Your task to perform on an android device: turn off translation in the chrome app Image 0: 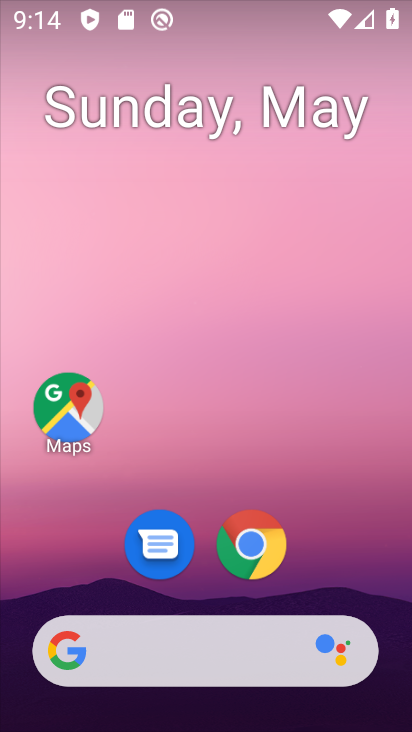
Step 0: drag from (328, 576) to (341, 199)
Your task to perform on an android device: turn off translation in the chrome app Image 1: 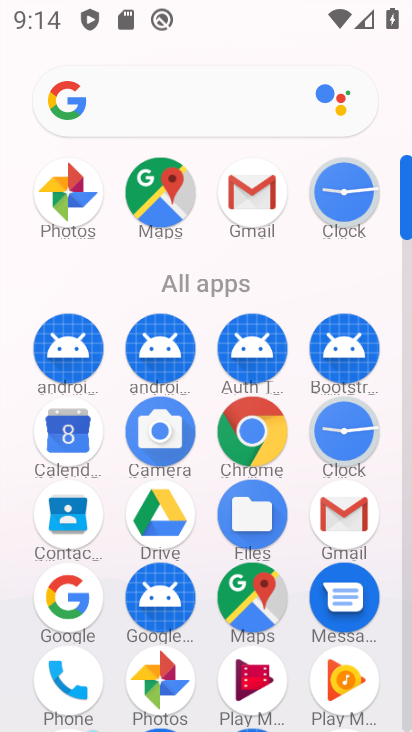
Step 1: click (264, 448)
Your task to perform on an android device: turn off translation in the chrome app Image 2: 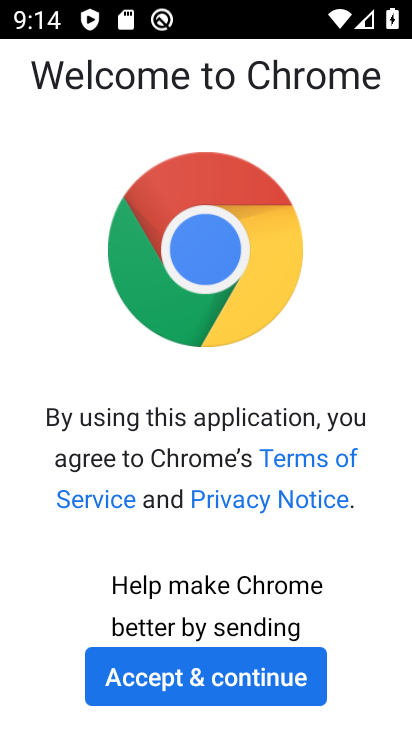
Step 2: click (198, 674)
Your task to perform on an android device: turn off translation in the chrome app Image 3: 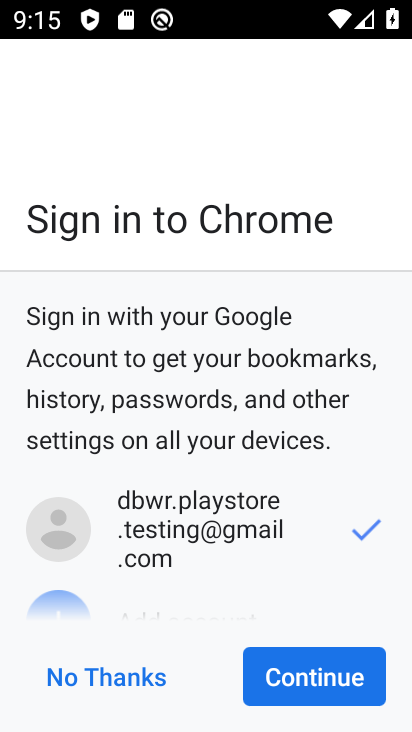
Step 3: click (314, 681)
Your task to perform on an android device: turn off translation in the chrome app Image 4: 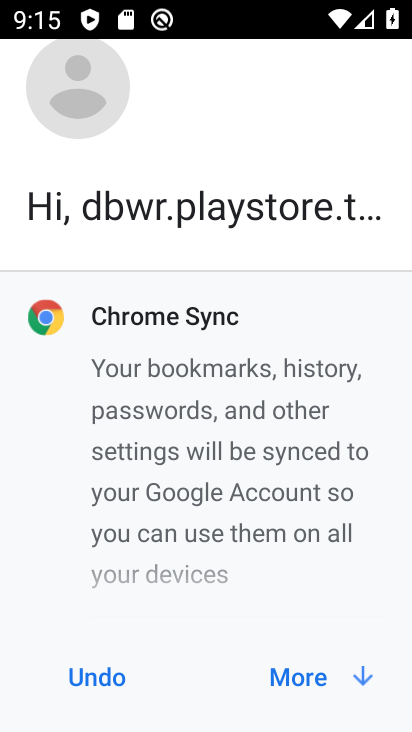
Step 4: click (314, 681)
Your task to perform on an android device: turn off translation in the chrome app Image 5: 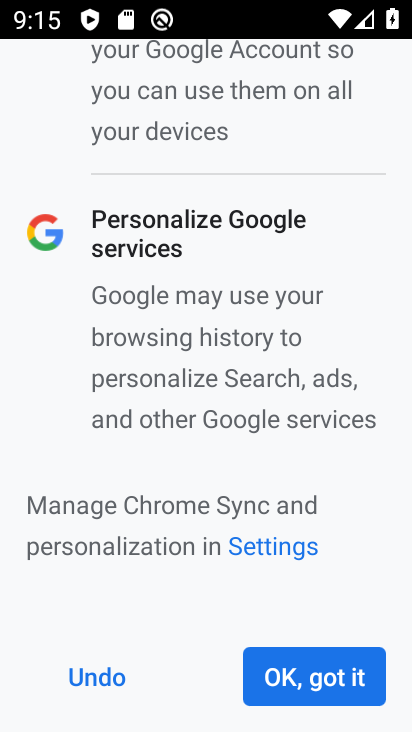
Step 5: click (335, 681)
Your task to perform on an android device: turn off translation in the chrome app Image 6: 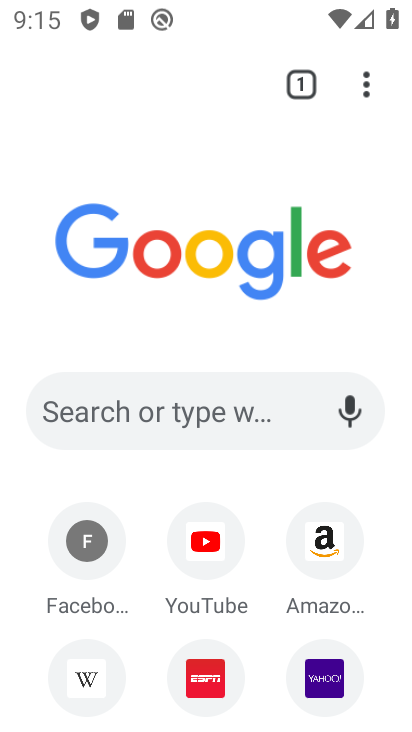
Step 6: drag from (364, 100) to (197, 617)
Your task to perform on an android device: turn off translation in the chrome app Image 7: 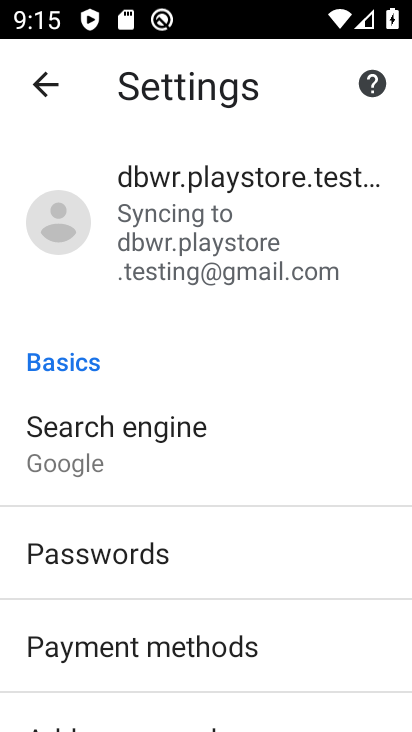
Step 7: drag from (277, 693) to (255, 228)
Your task to perform on an android device: turn off translation in the chrome app Image 8: 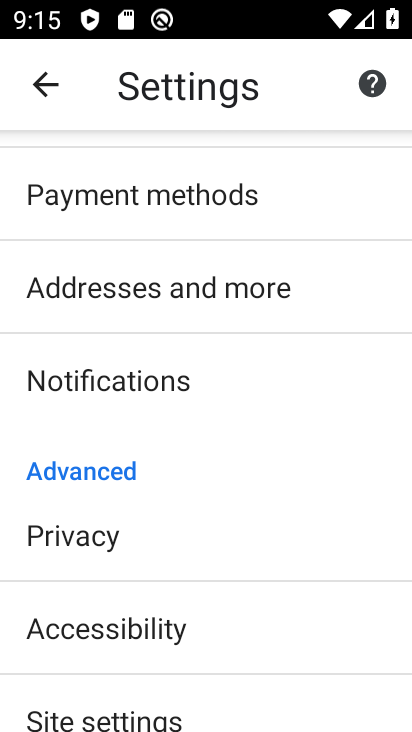
Step 8: drag from (299, 669) to (277, 388)
Your task to perform on an android device: turn off translation in the chrome app Image 9: 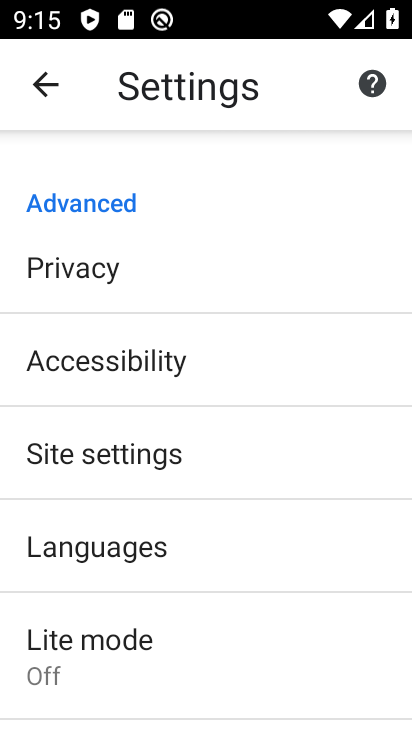
Step 9: click (280, 554)
Your task to perform on an android device: turn off translation in the chrome app Image 10: 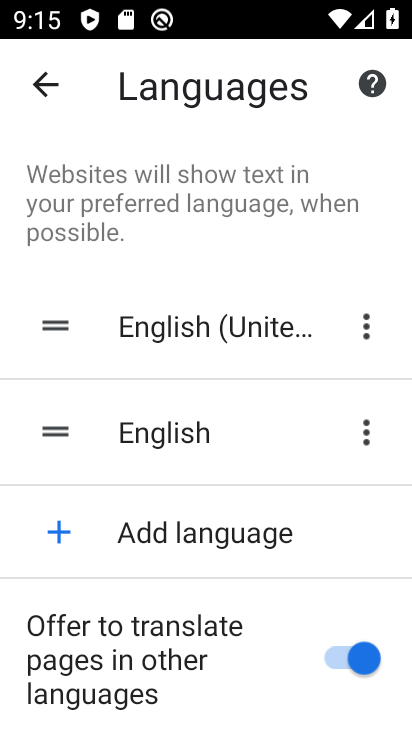
Step 10: click (337, 666)
Your task to perform on an android device: turn off translation in the chrome app Image 11: 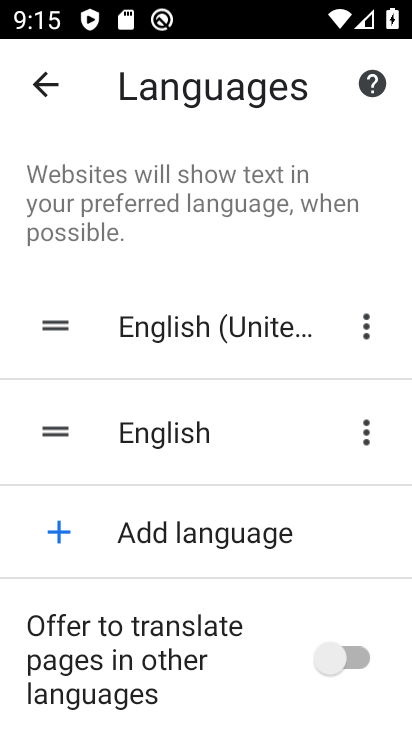
Step 11: task complete